Your task to perform on an android device: turn on javascript in the chrome app Image 0: 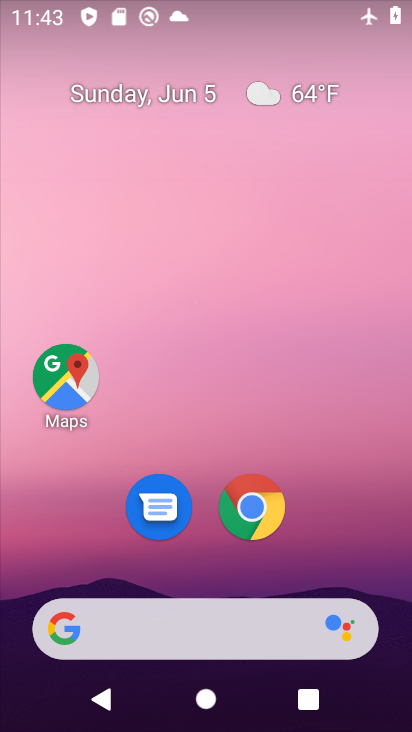
Step 0: click (255, 509)
Your task to perform on an android device: turn on javascript in the chrome app Image 1: 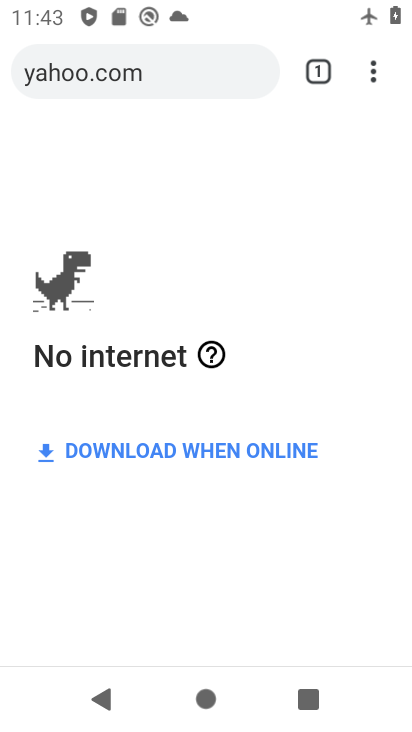
Step 1: drag from (376, 71) to (215, 505)
Your task to perform on an android device: turn on javascript in the chrome app Image 2: 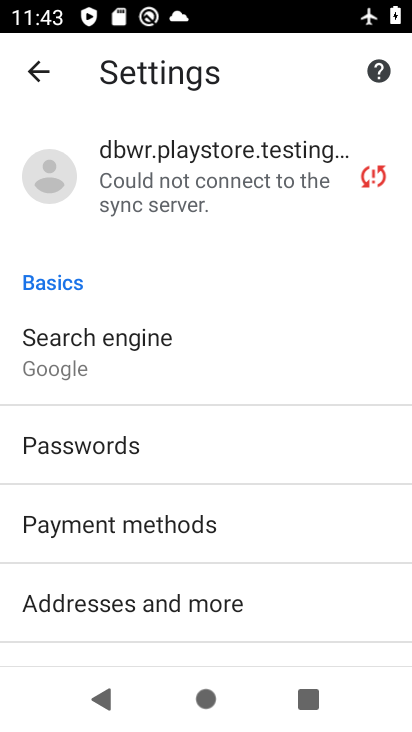
Step 2: drag from (193, 572) to (317, 114)
Your task to perform on an android device: turn on javascript in the chrome app Image 3: 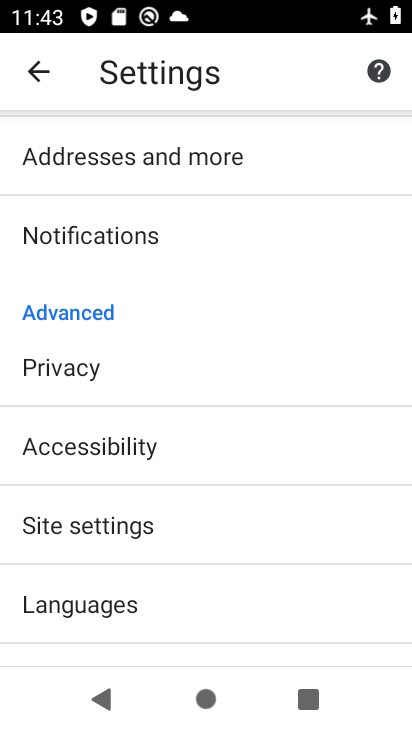
Step 3: drag from (224, 598) to (265, 245)
Your task to perform on an android device: turn on javascript in the chrome app Image 4: 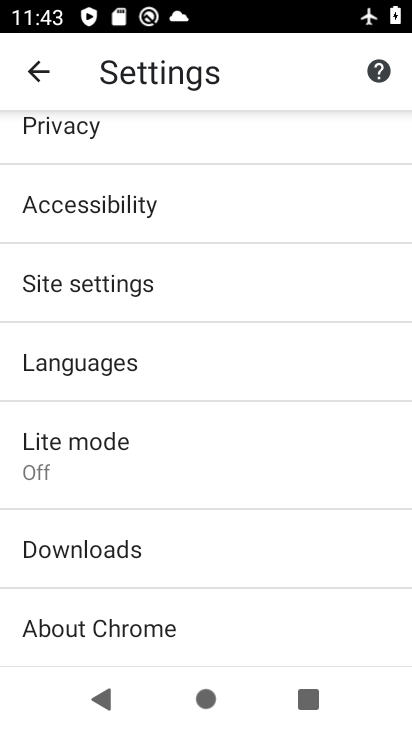
Step 4: drag from (127, 585) to (223, 243)
Your task to perform on an android device: turn on javascript in the chrome app Image 5: 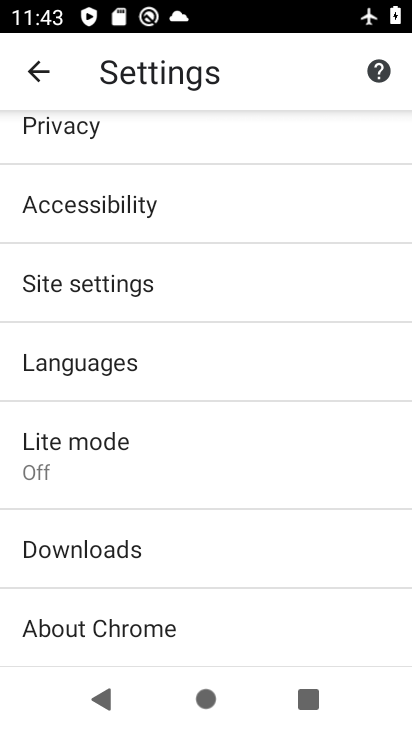
Step 5: click (136, 289)
Your task to perform on an android device: turn on javascript in the chrome app Image 6: 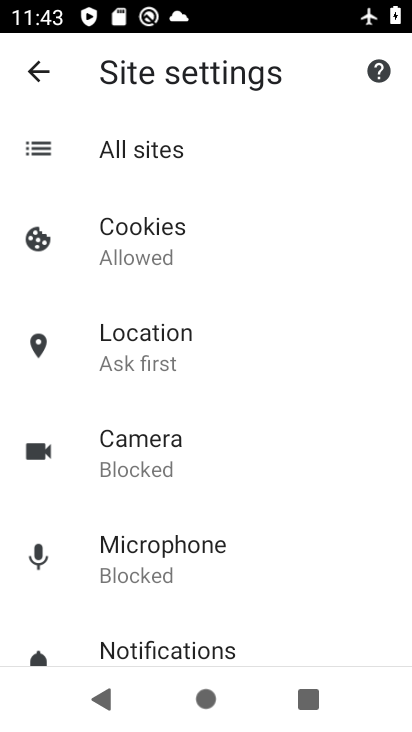
Step 6: drag from (173, 609) to (214, 225)
Your task to perform on an android device: turn on javascript in the chrome app Image 7: 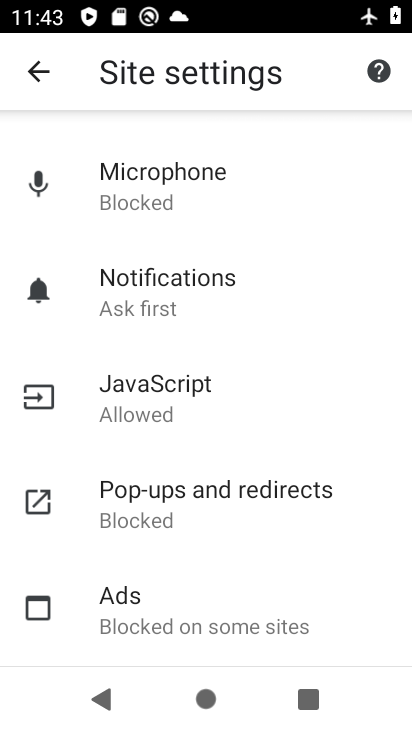
Step 7: click (145, 393)
Your task to perform on an android device: turn on javascript in the chrome app Image 8: 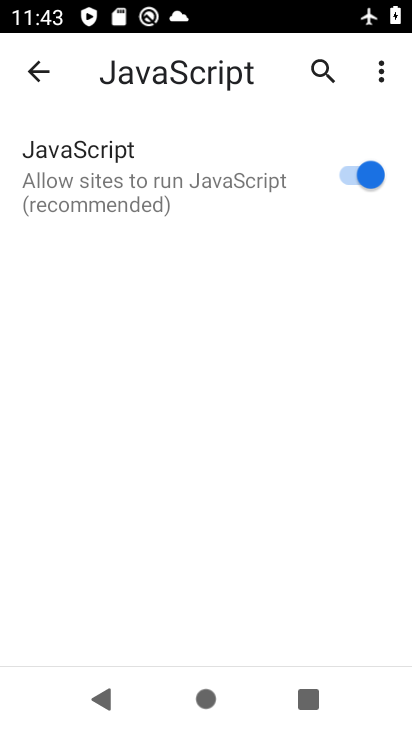
Step 8: task complete